Your task to perform on an android device: open app "Skype" Image 0: 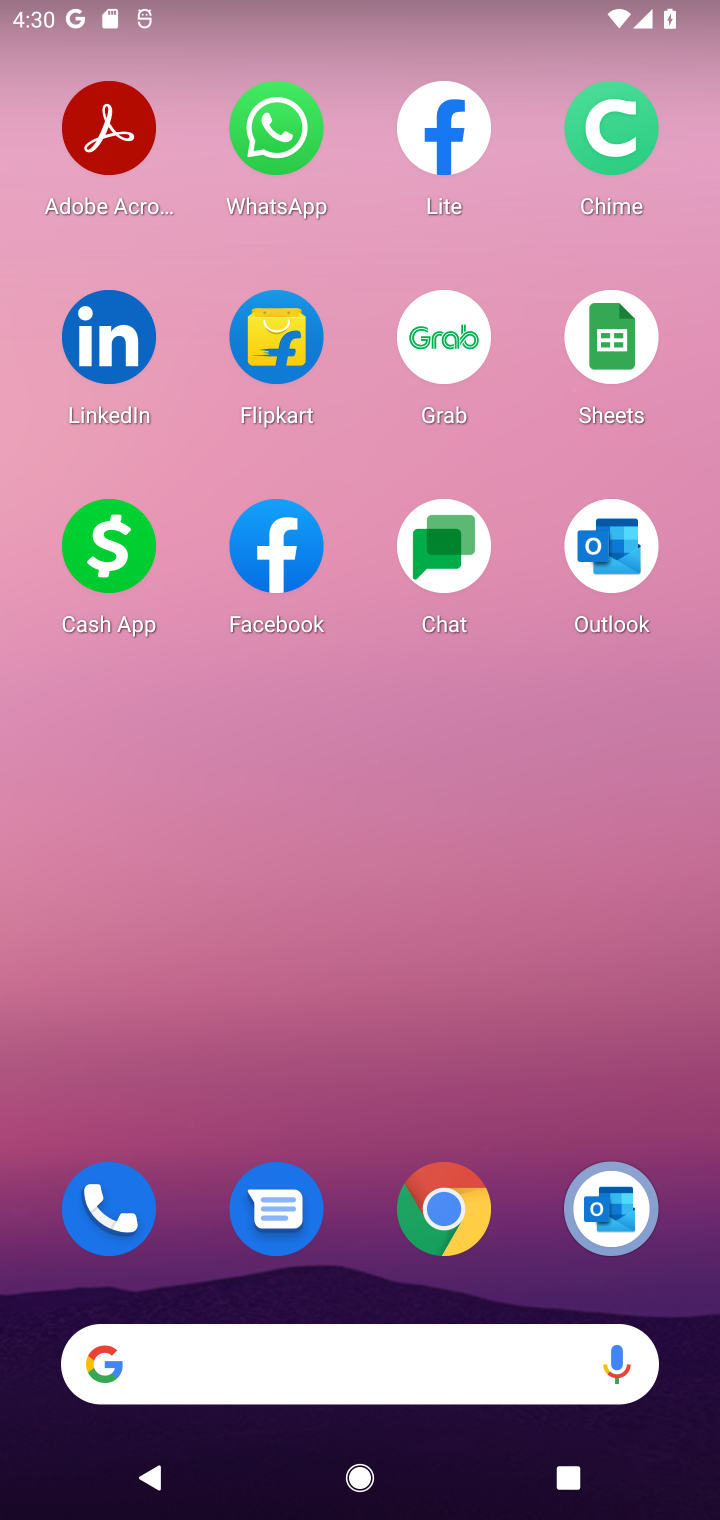
Step 0: drag from (548, 1294) to (597, 81)
Your task to perform on an android device: open app "Skype" Image 1: 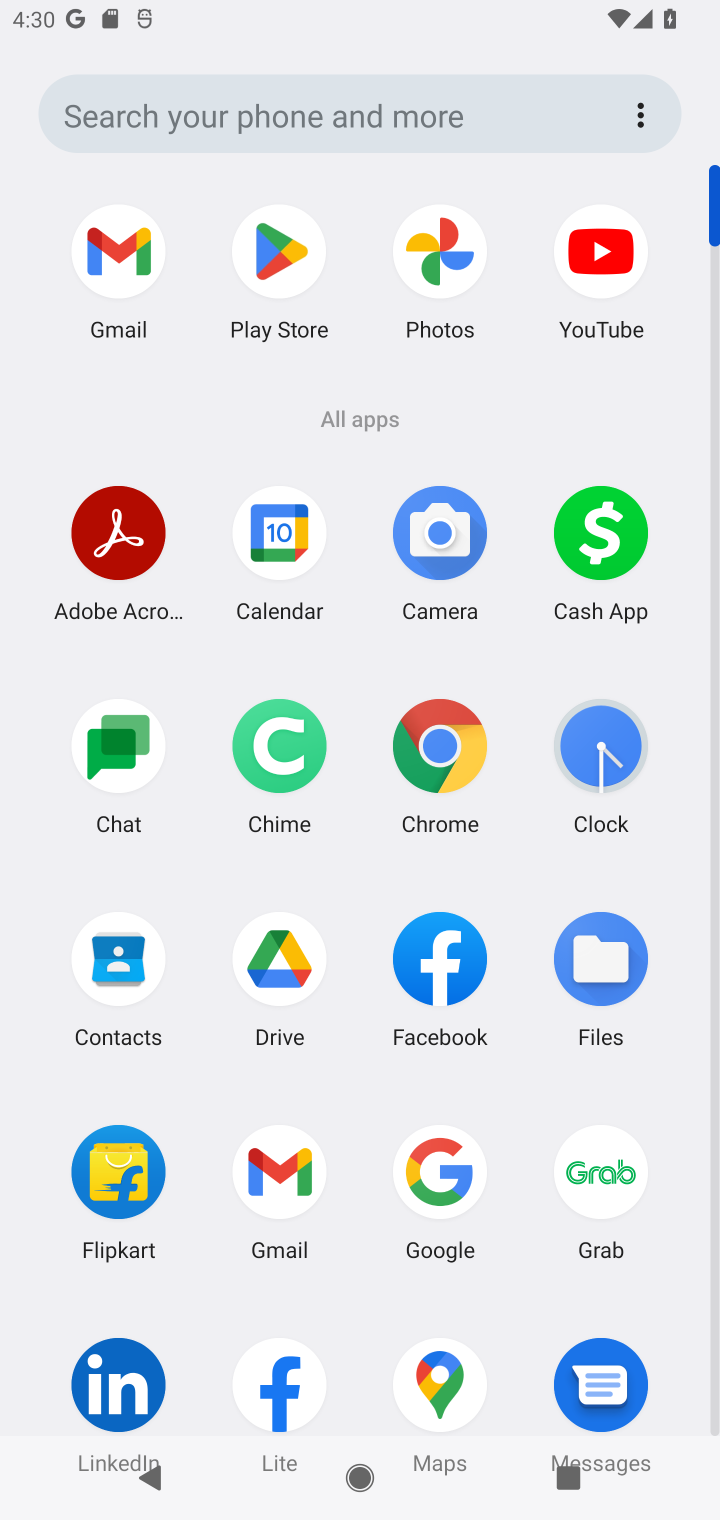
Step 1: click (296, 319)
Your task to perform on an android device: open app "Skype" Image 2: 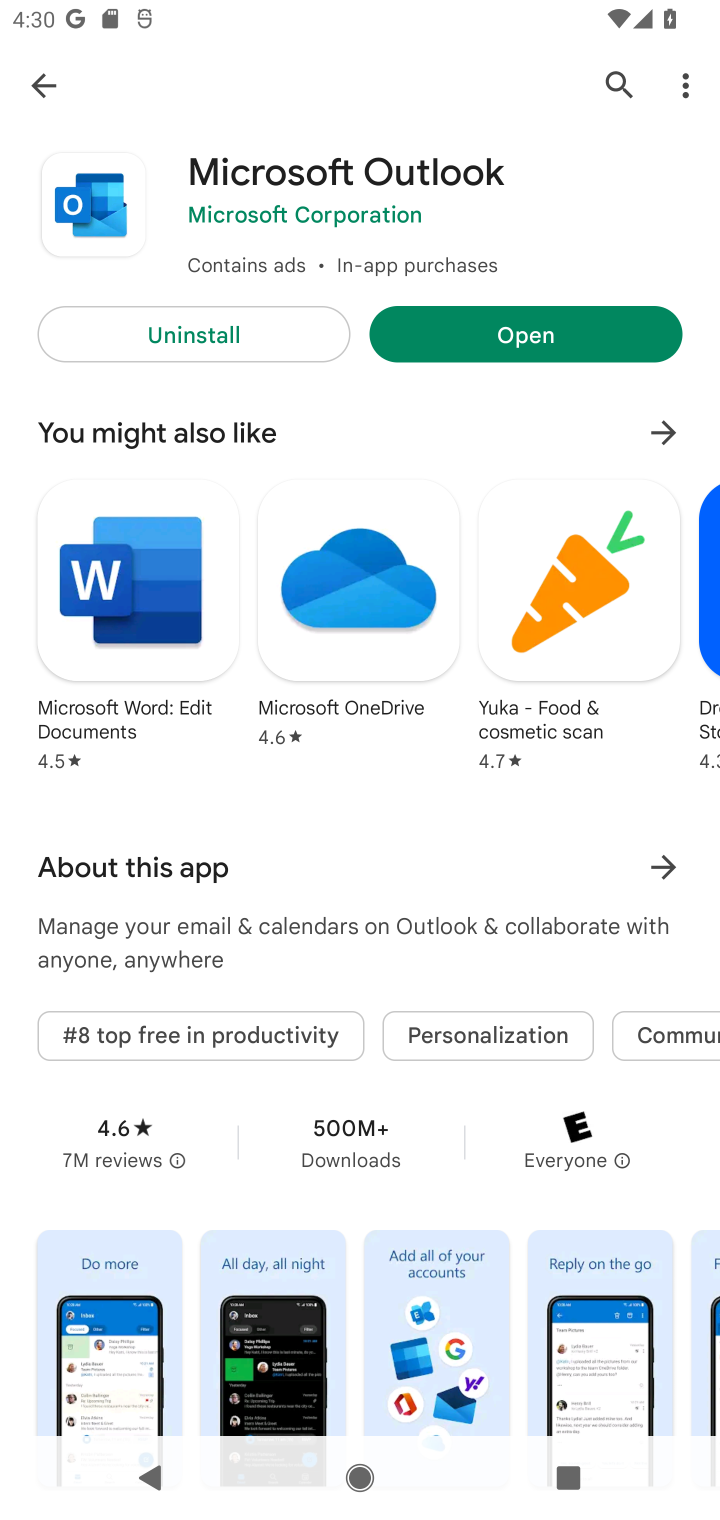
Step 2: click (597, 87)
Your task to perform on an android device: open app "Skype" Image 3: 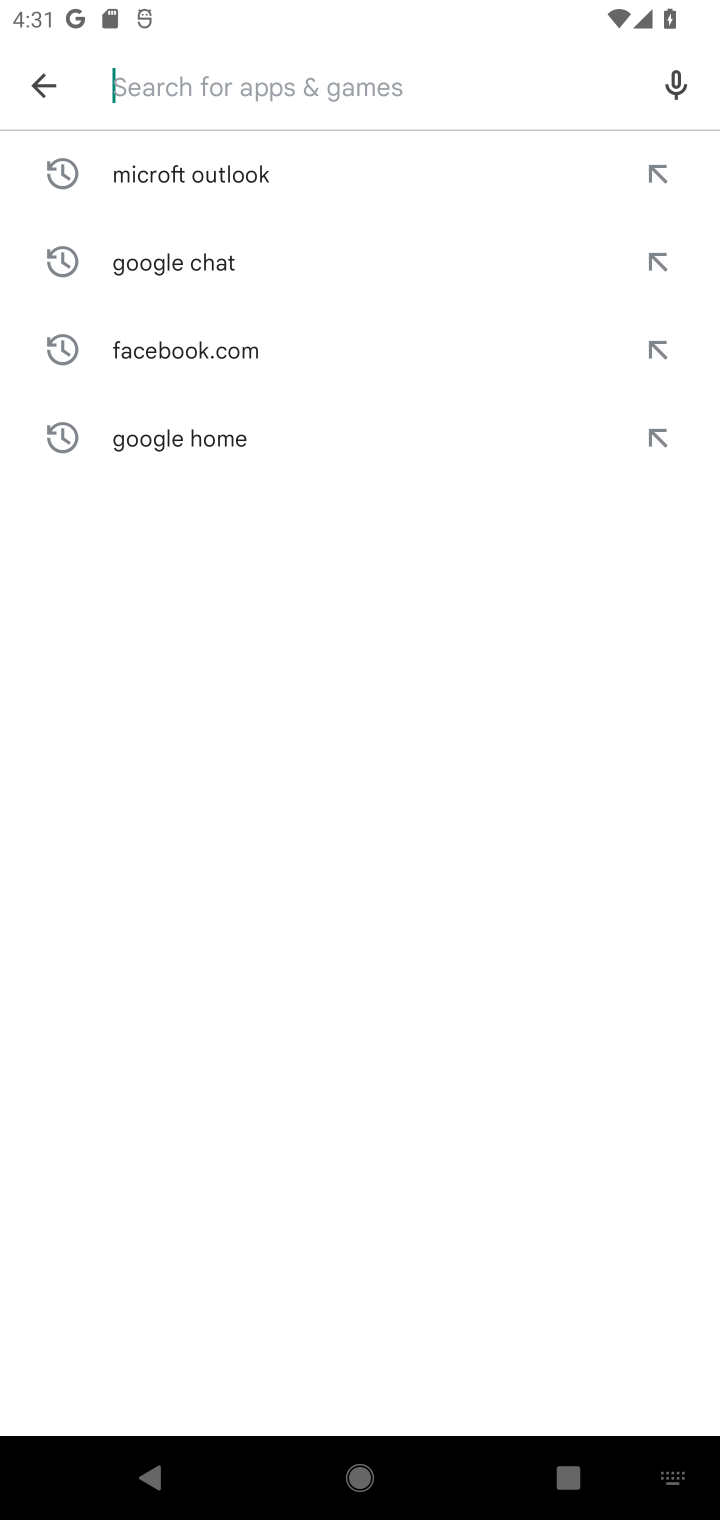
Step 3: type "skype"
Your task to perform on an android device: open app "Skype" Image 4: 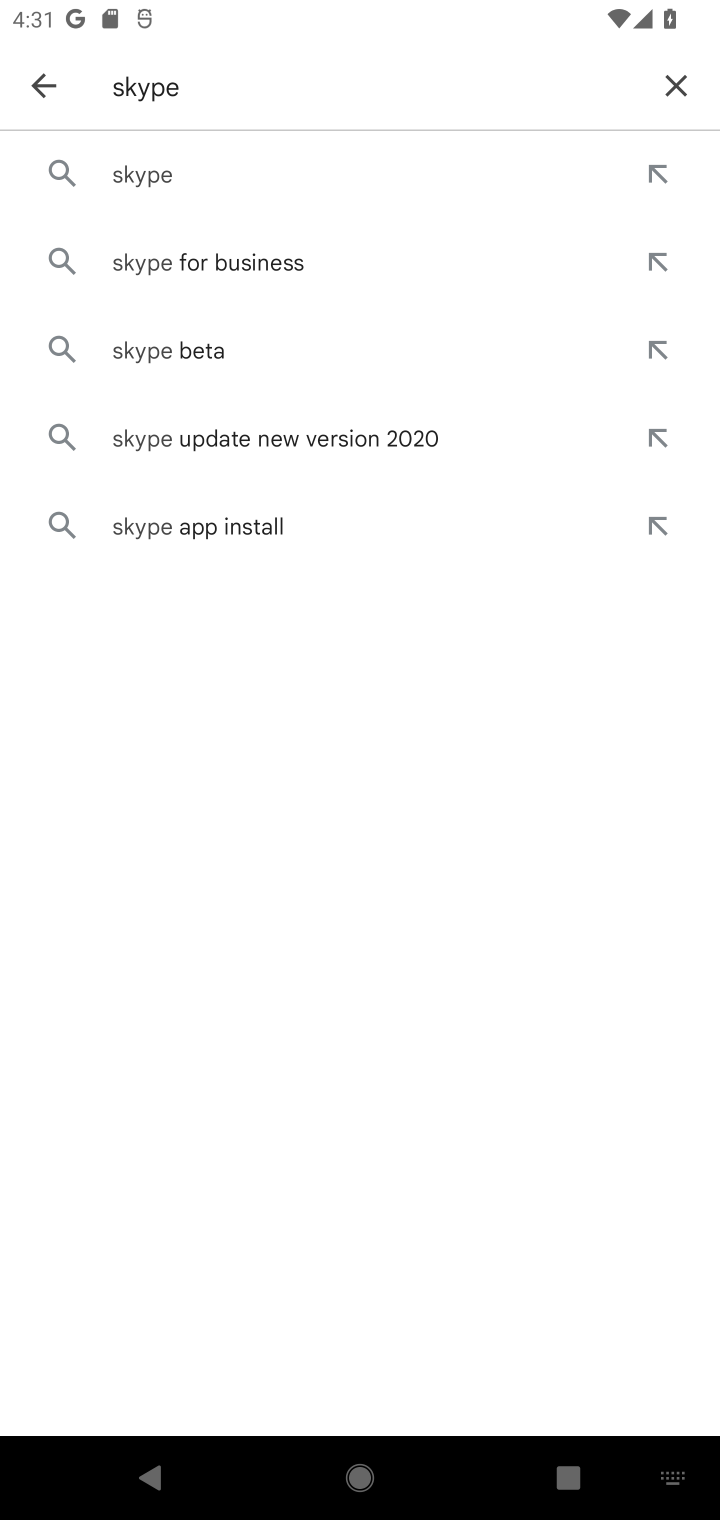
Step 4: click (341, 193)
Your task to perform on an android device: open app "Skype" Image 5: 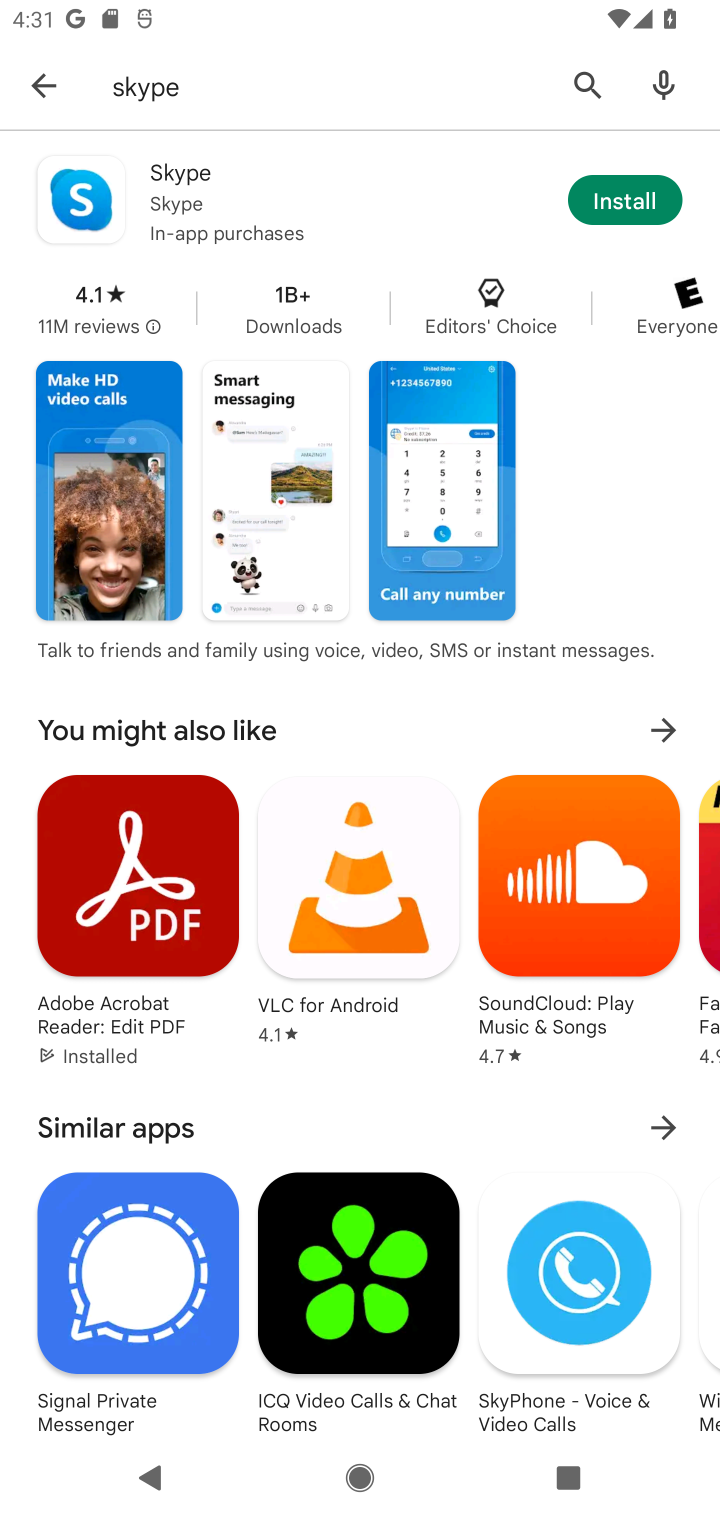
Step 5: click (609, 223)
Your task to perform on an android device: open app "Skype" Image 6: 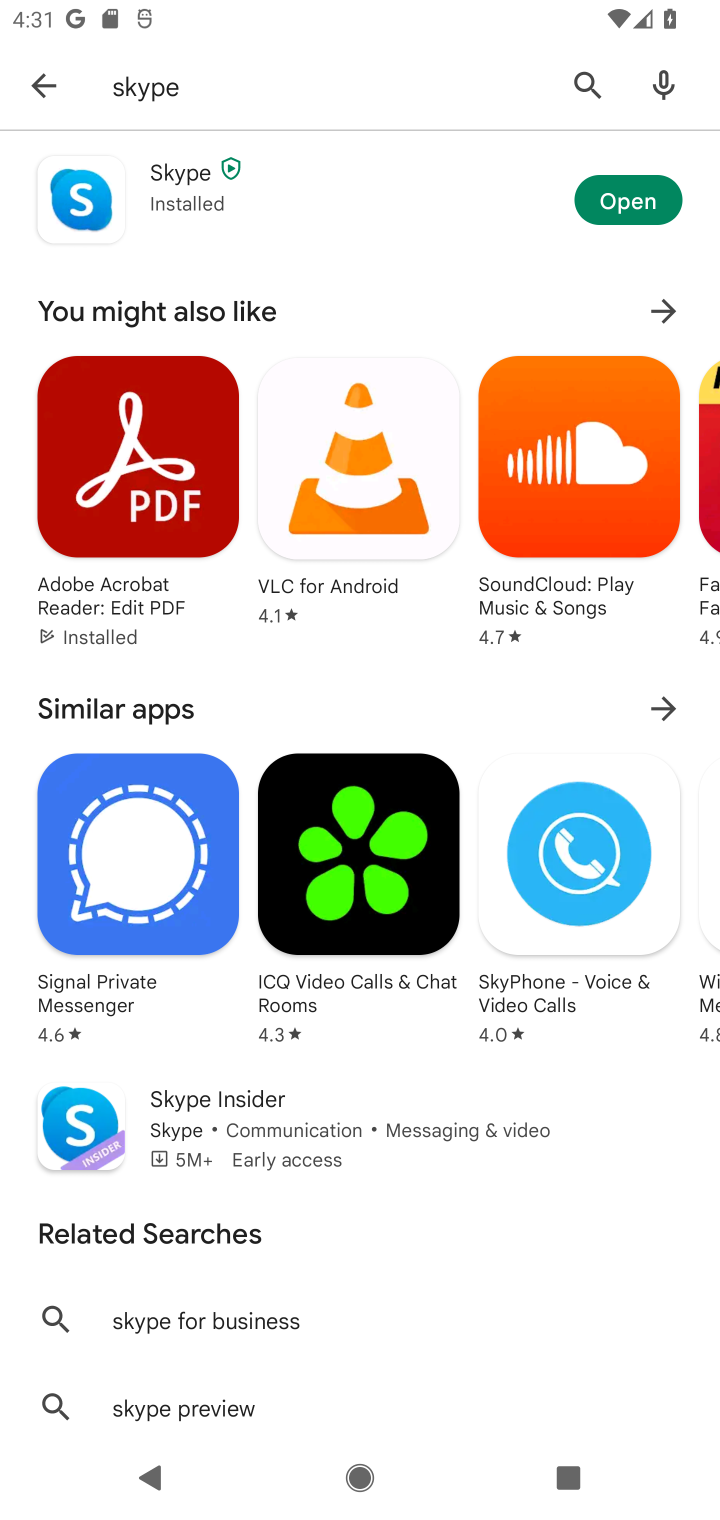
Step 6: click (562, 202)
Your task to perform on an android device: open app "Skype" Image 7: 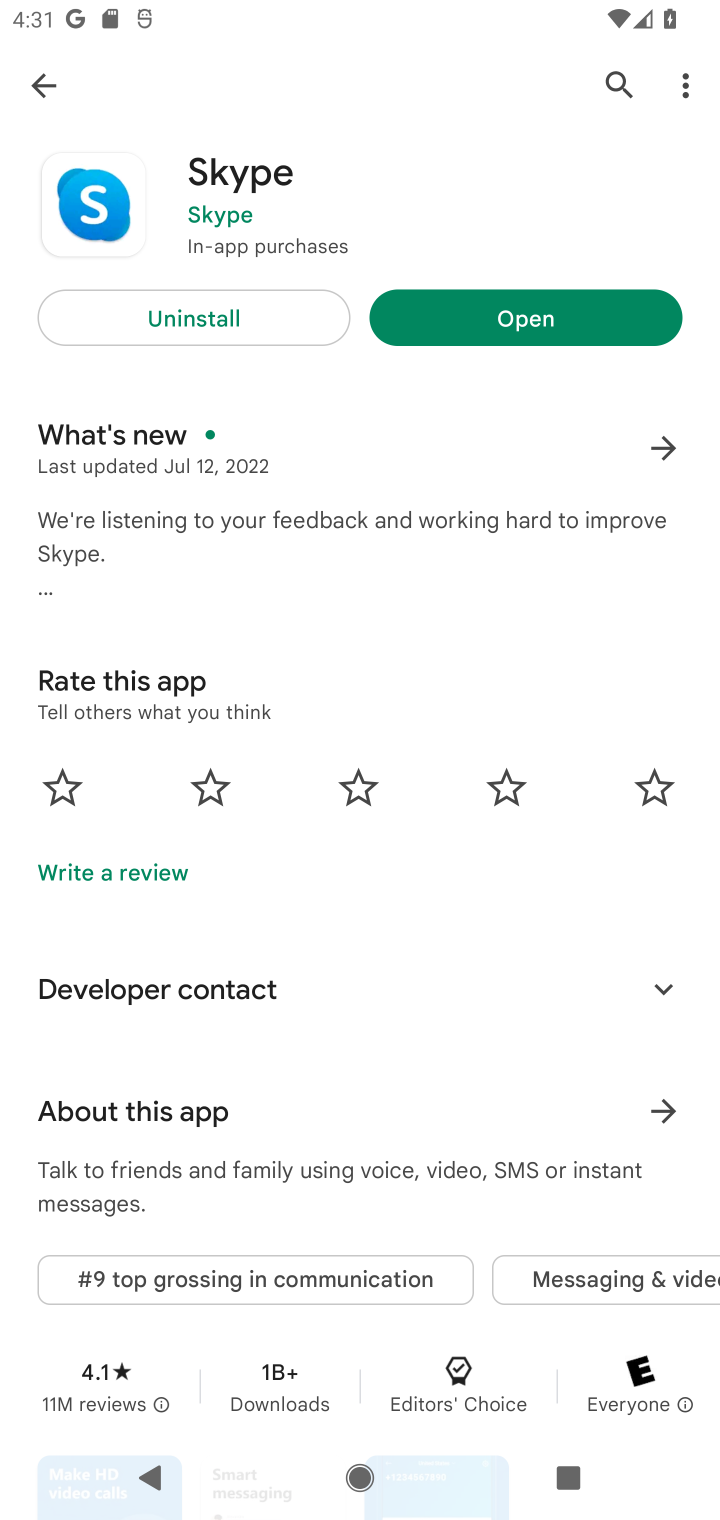
Step 7: click (630, 292)
Your task to perform on an android device: open app "Skype" Image 8: 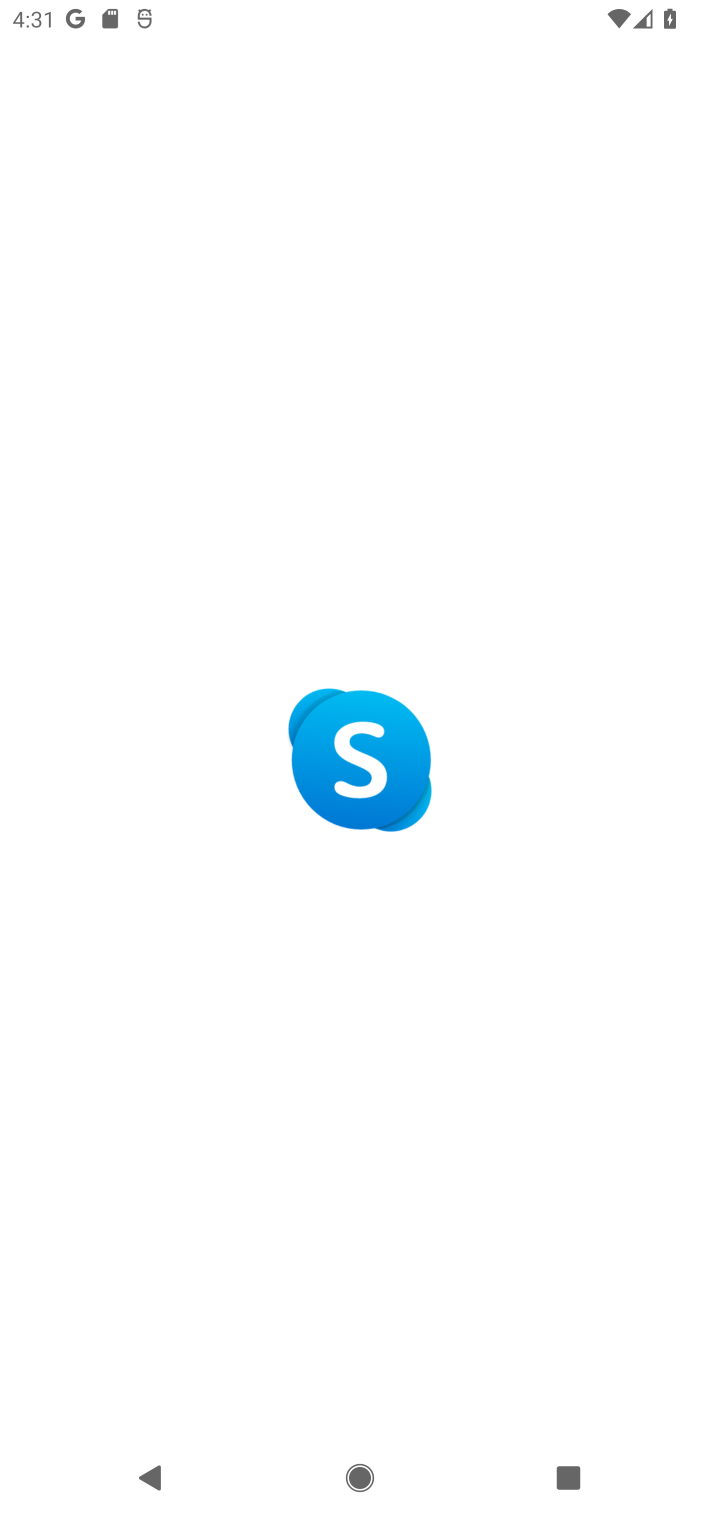
Step 8: task complete